Your task to perform on an android device: empty trash in the gmail app Image 0: 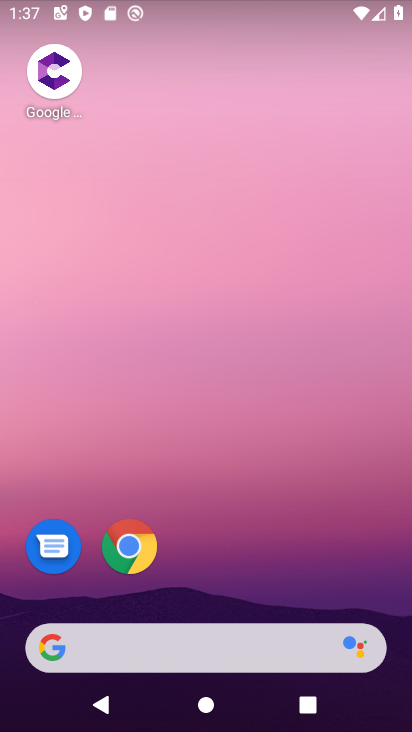
Step 0: drag from (344, 594) to (243, 113)
Your task to perform on an android device: empty trash in the gmail app Image 1: 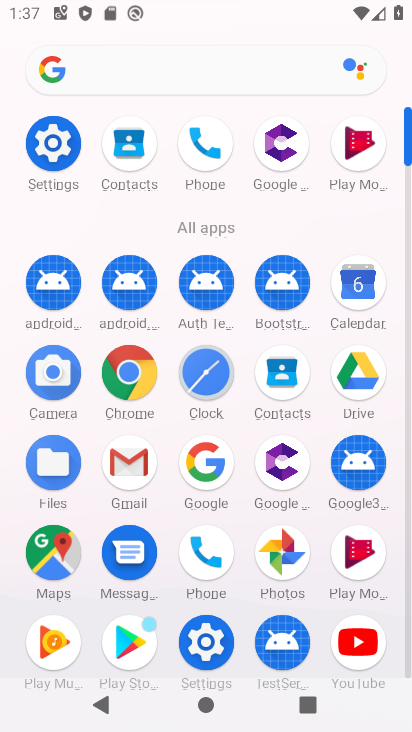
Step 1: click (136, 459)
Your task to perform on an android device: empty trash in the gmail app Image 2: 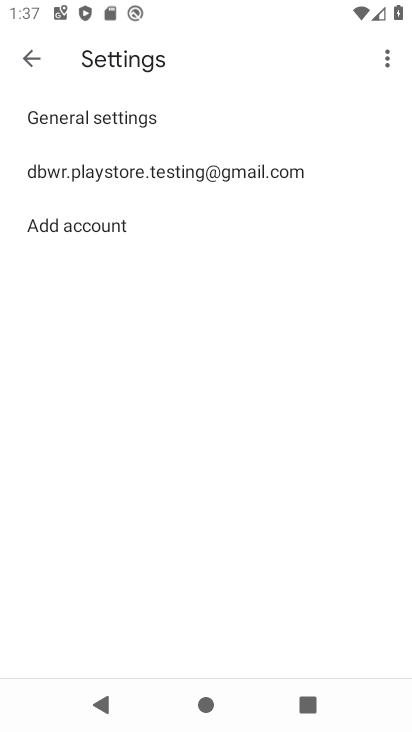
Step 2: click (24, 47)
Your task to perform on an android device: empty trash in the gmail app Image 3: 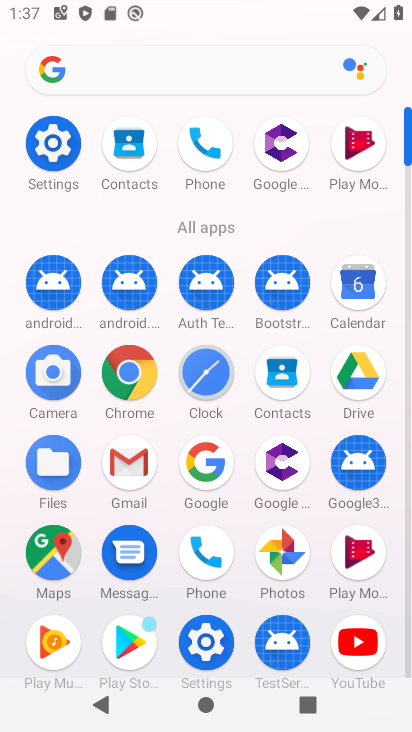
Step 3: click (122, 475)
Your task to perform on an android device: empty trash in the gmail app Image 4: 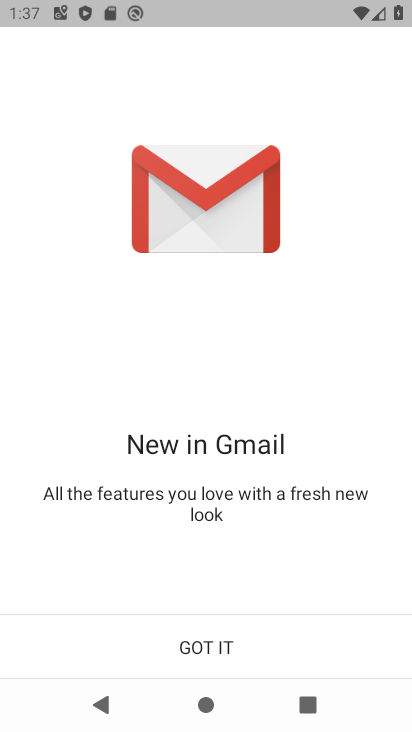
Step 4: task complete